Your task to perform on an android device: turn off airplane mode Image 0: 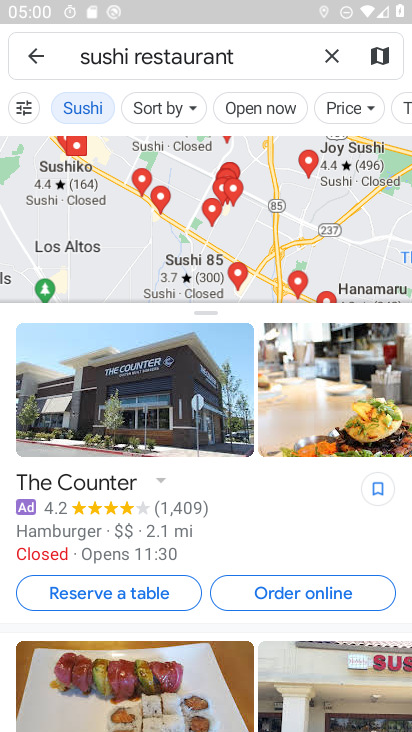
Step 0: drag from (313, 6) to (300, 539)
Your task to perform on an android device: turn off airplane mode Image 1: 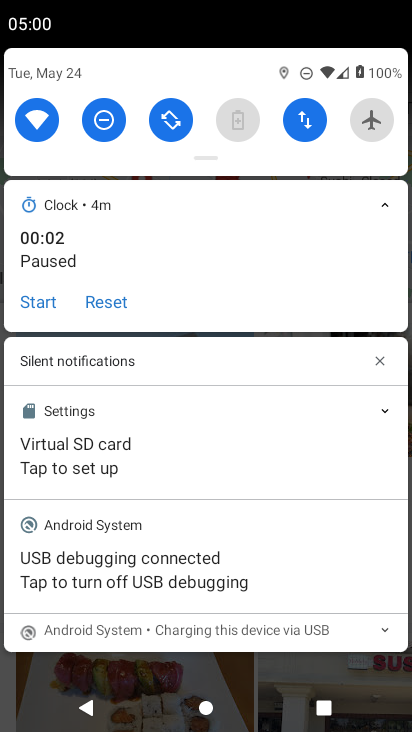
Step 1: task complete